Your task to perform on an android device: Go to notification settings Image 0: 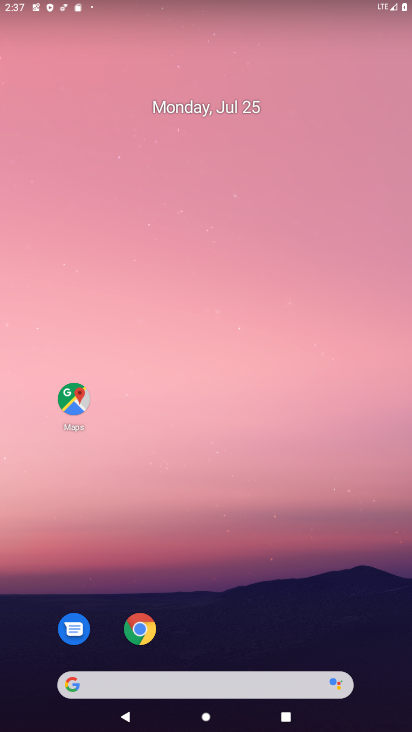
Step 0: drag from (259, 123) to (1, 1)
Your task to perform on an android device: Go to notification settings Image 1: 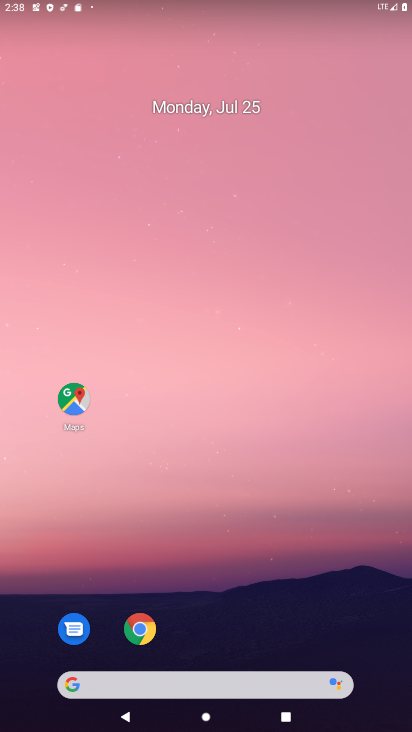
Step 1: drag from (195, 621) to (253, 90)
Your task to perform on an android device: Go to notification settings Image 2: 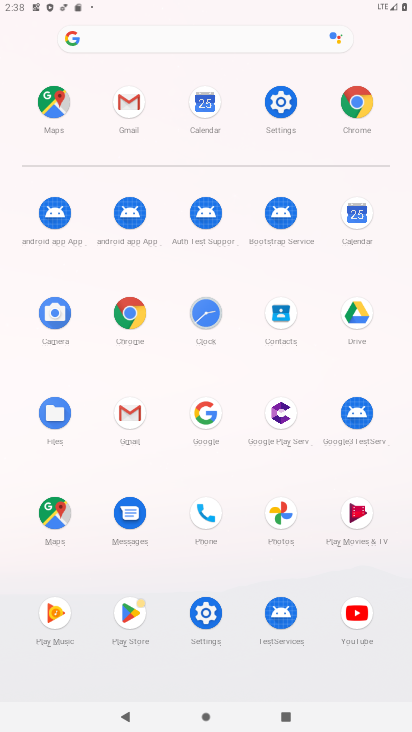
Step 2: click (199, 612)
Your task to perform on an android device: Go to notification settings Image 3: 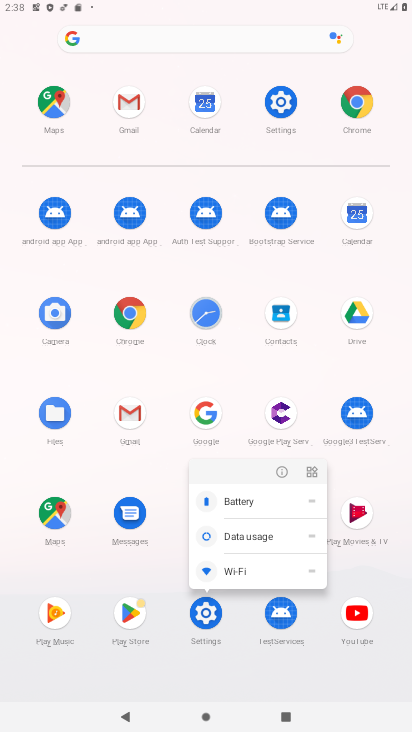
Step 3: click (284, 467)
Your task to perform on an android device: Go to notification settings Image 4: 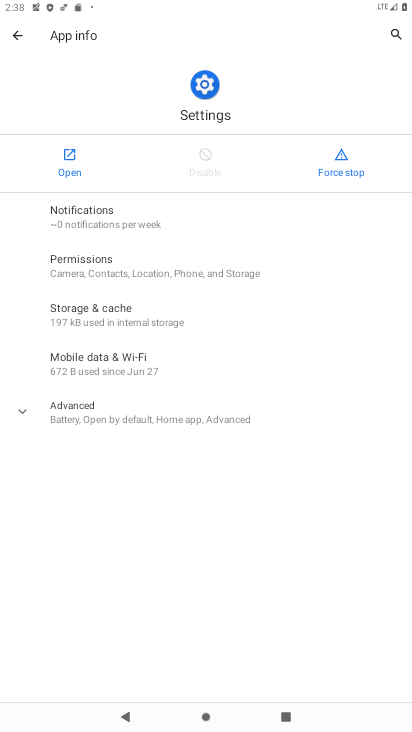
Step 4: click (77, 155)
Your task to perform on an android device: Go to notification settings Image 5: 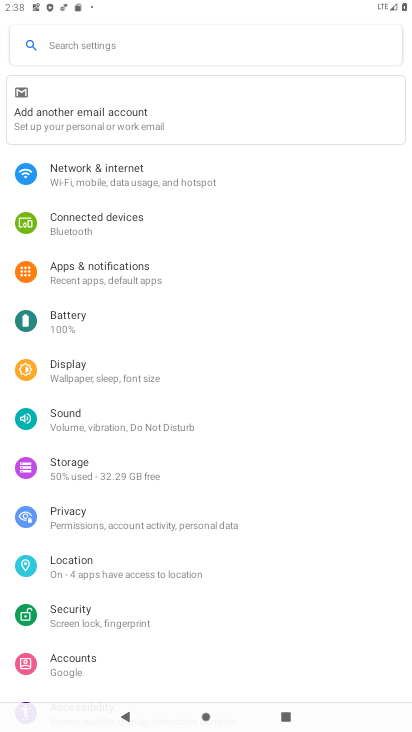
Step 5: click (150, 270)
Your task to perform on an android device: Go to notification settings Image 6: 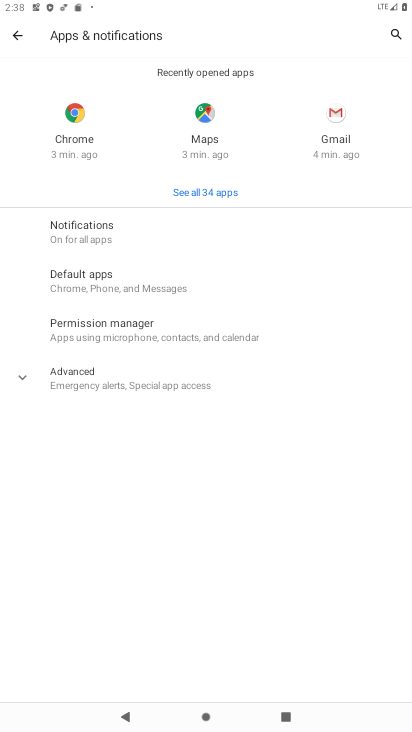
Step 6: click (141, 231)
Your task to perform on an android device: Go to notification settings Image 7: 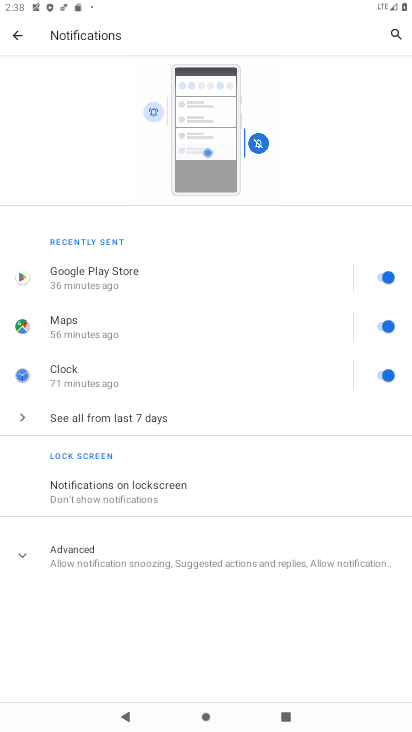
Step 7: task complete